Your task to perform on an android device: Open Youtube and go to the subscriptions tab Image 0: 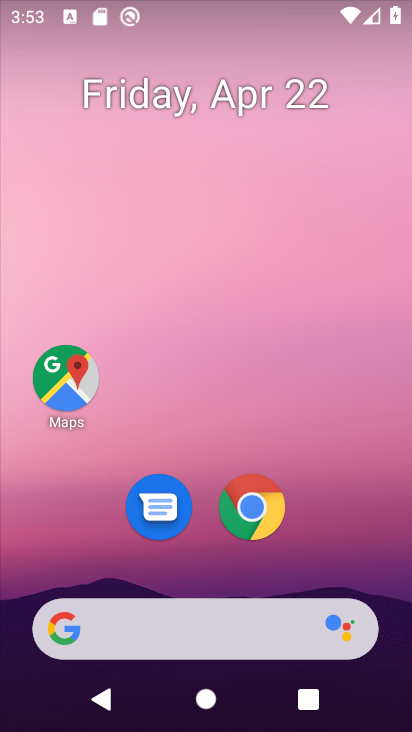
Step 0: drag from (392, 630) to (312, 53)
Your task to perform on an android device: Open Youtube and go to the subscriptions tab Image 1: 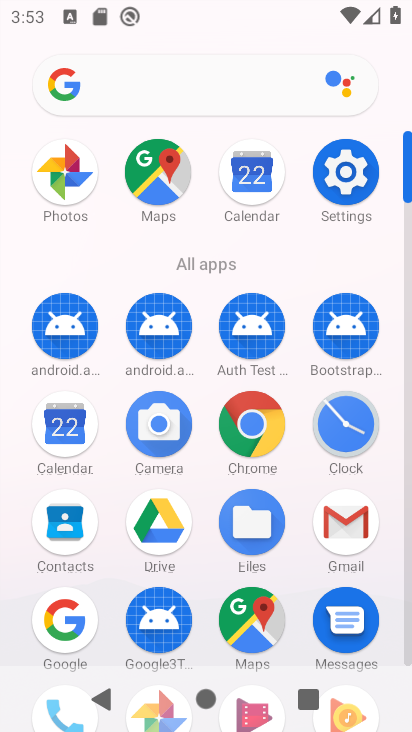
Step 1: click (404, 641)
Your task to perform on an android device: Open Youtube and go to the subscriptions tab Image 2: 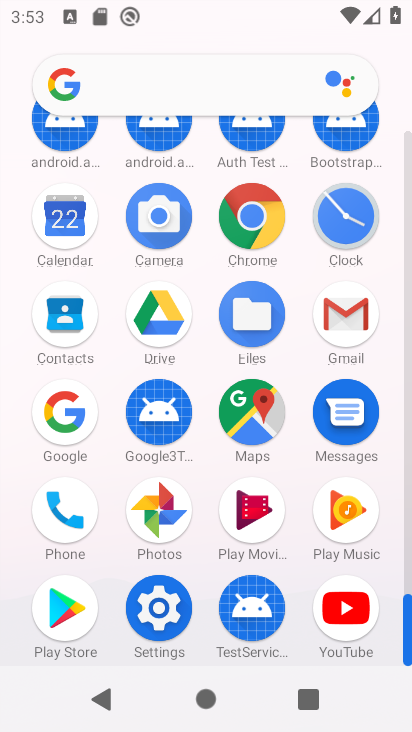
Step 2: click (342, 606)
Your task to perform on an android device: Open Youtube and go to the subscriptions tab Image 3: 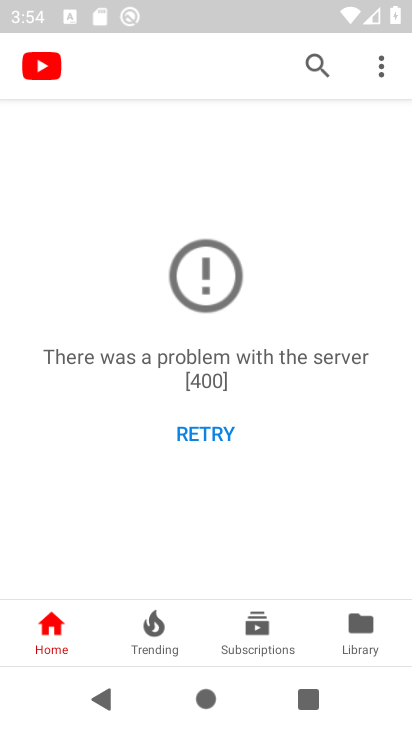
Step 3: click (258, 635)
Your task to perform on an android device: Open Youtube and go to the subscriptions tab Image 4: 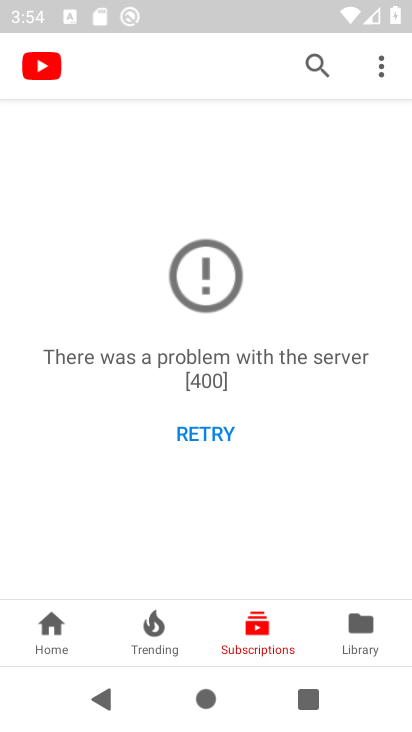
Step 4: task complete